Your task to perform on an android device: Open Chrome and go to settings Image 0: 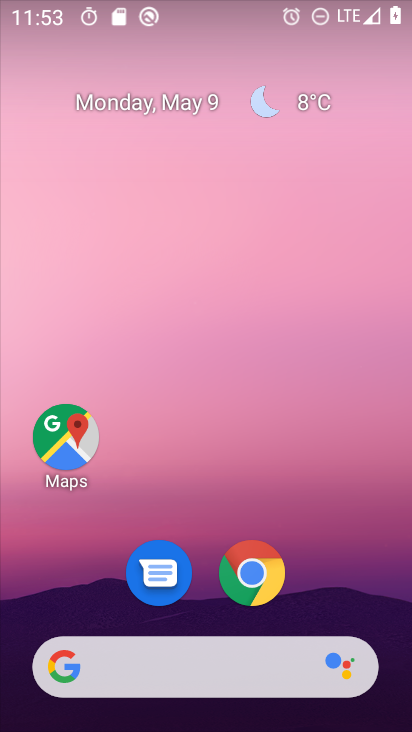
Step 0: drag from (370, 538) to (356, 207)
Your task to perform on an android device: Open Chrome and go to settings Image 1: 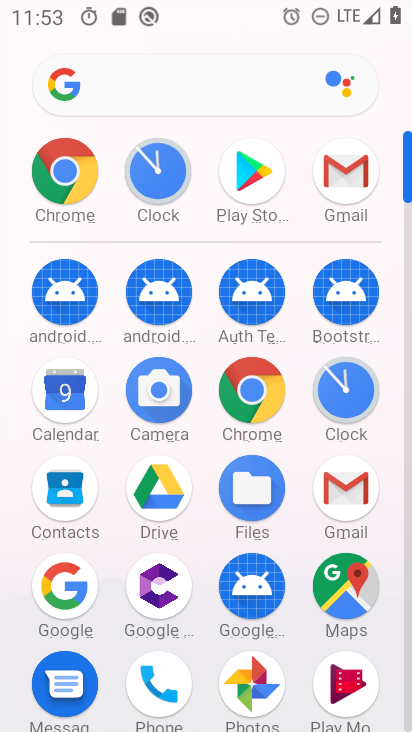
Step 1: click (258, 395)
Your task to perform on an android device: Open Chrome and go to settings Image 2: 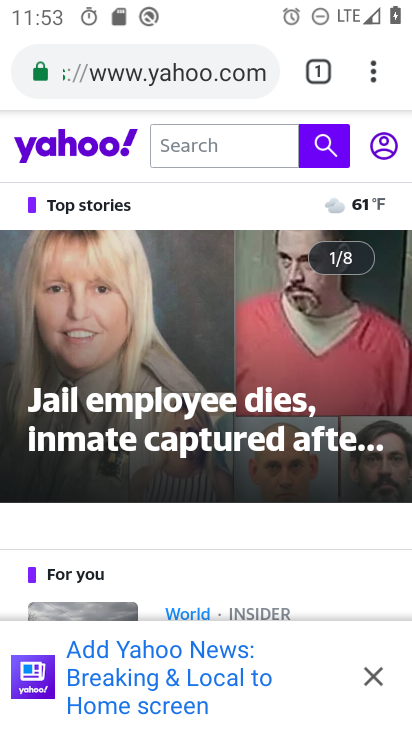
Step 2: click (372, 64)
Your task to perform on an android device: Open Chrome and go to settings Image 3: 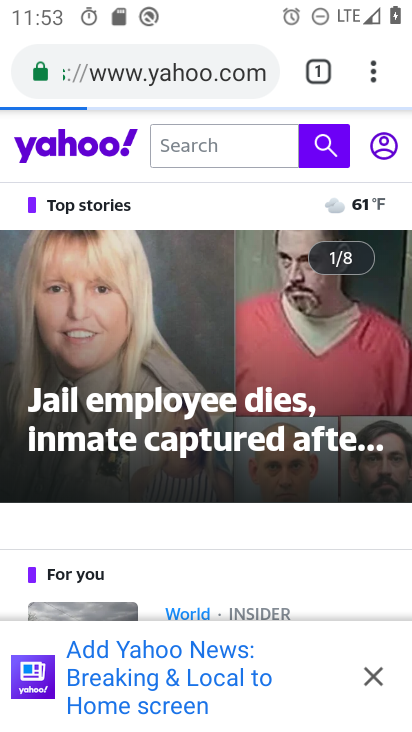
Step 3: task complete